Your task to perform on an android device: Open Android settings Image 0: 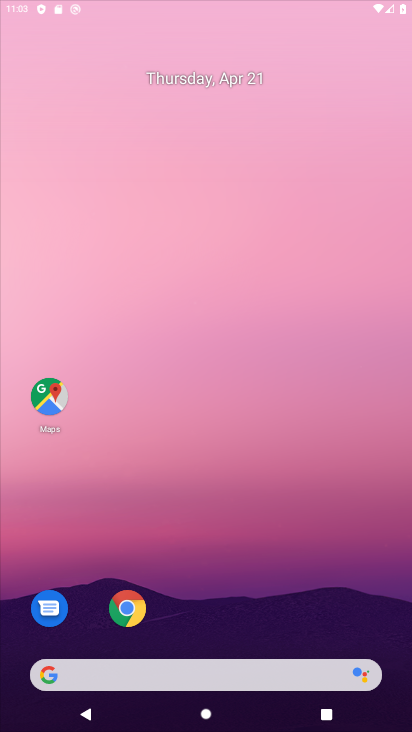
Step 0: press home button
Your task to perform on an android device: Open Android settings Image 1: 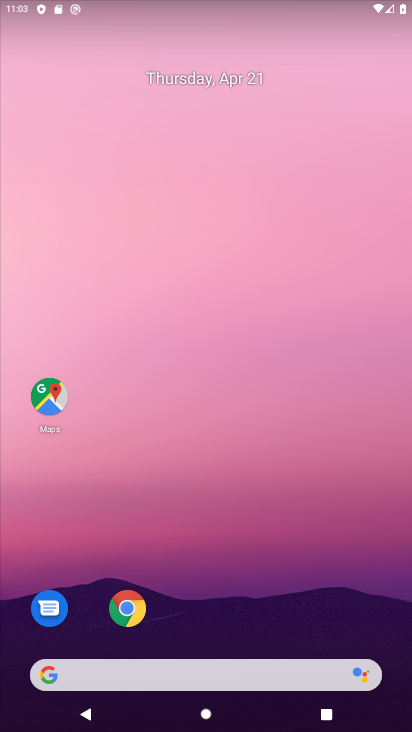
Step 1: drag from (186, 624) to (261, 275)
Your task to perform on an android device: Open Android settings Image 2: 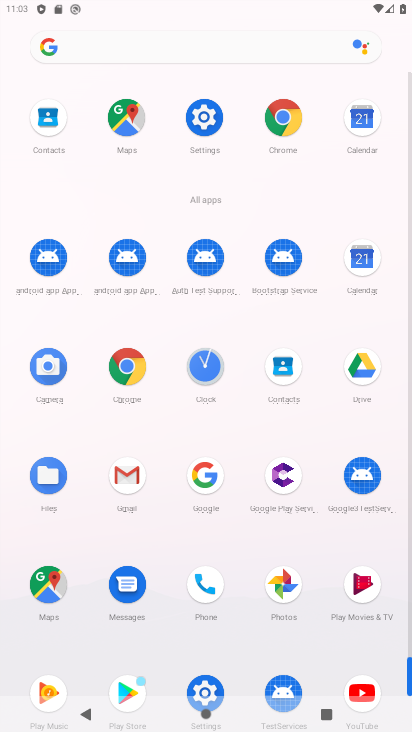
Step 2: click (208, 140)
Your task to perform on an android device: Open Android settings Image 3: 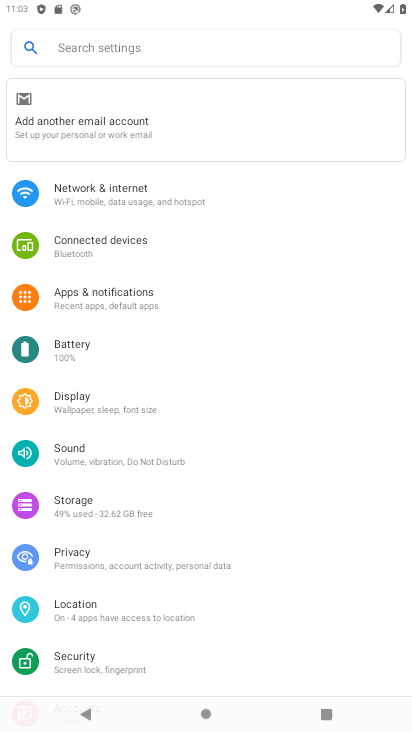
Step 3: task complete